Your task to perform on an android device: Go to calendar. Show me events next week Image 0: 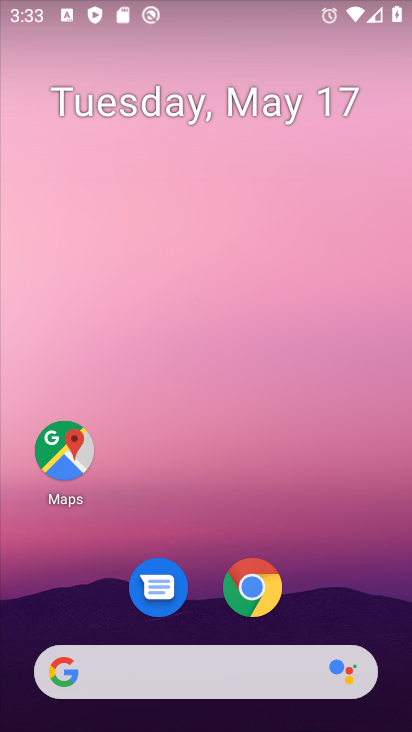
Step 0: drag from (207, 628) to (242, 101)
Your task to perform on an android device: Go to calendar. Show me events next week Image 1: 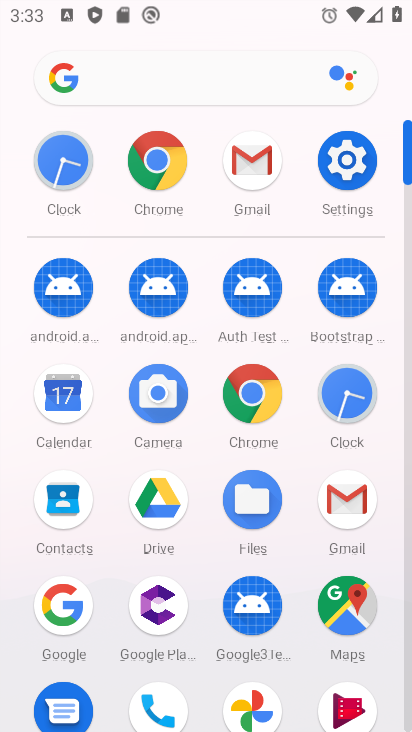
Step 1: click (66, 390)
Your task to perform on an android device: Go to calendar. Show me events next week Image 2: 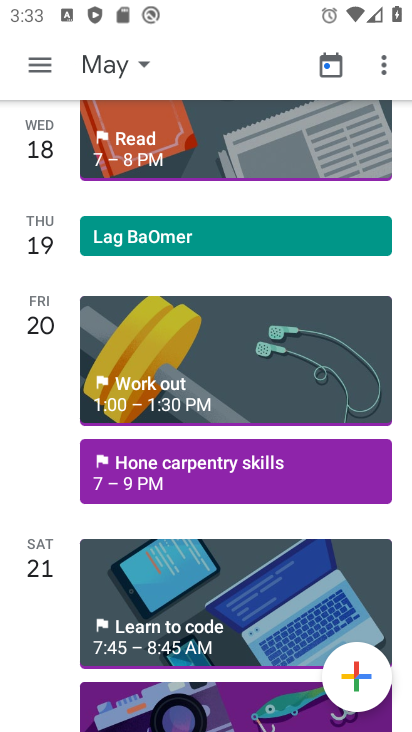
Step 2: drag from (206, 589) to (253, 268)
Your task to perform on an android device: Go to calendar. Show me events next week Image 3: 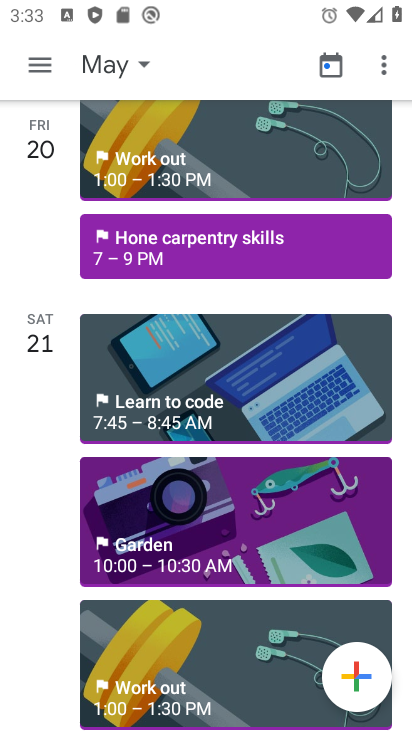
Step 3: click (104, 68)
Your task to perform on an android device: Go to calendar. Show me events next week Image 4: 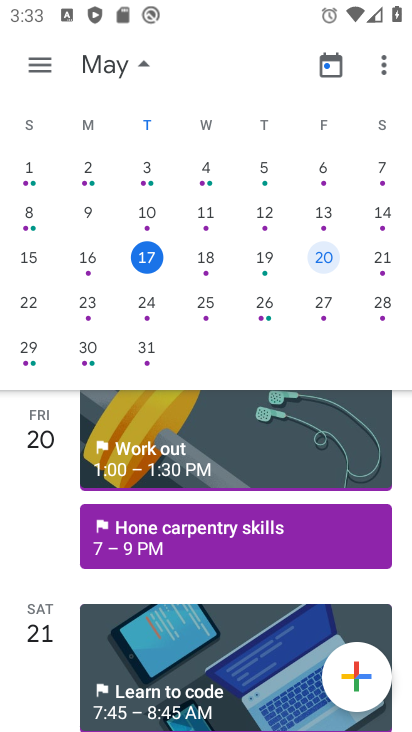
Step 4: click (260, 303)
Your task to perform on an android device: Go to calendar. Show me events next week Image 5: 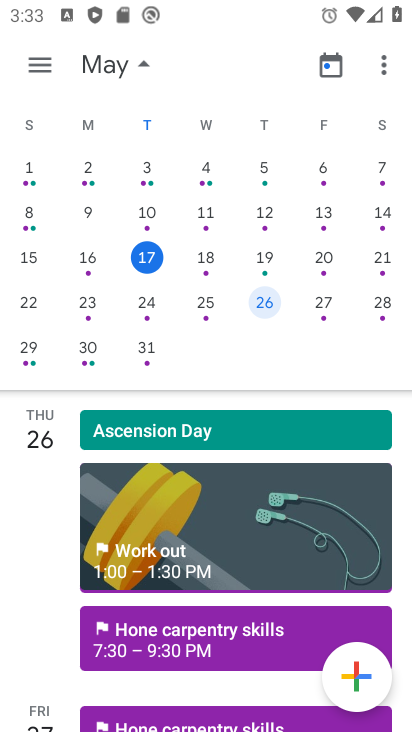
Step 5: task complete